Your task to perform on an android device: Go to ESPN.com Image 0: 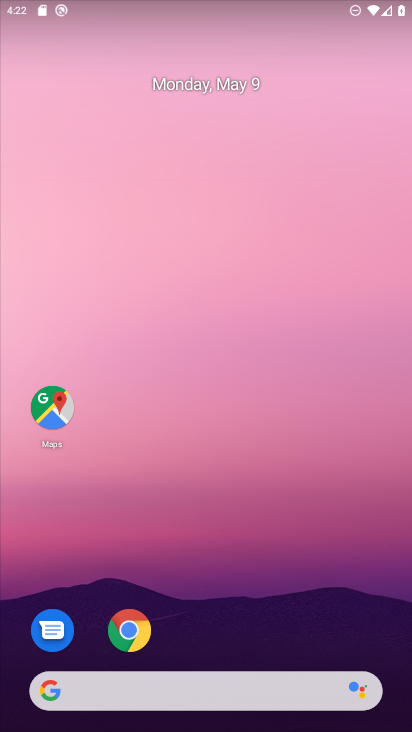
Step 0: drag from (261, 724) to (154, 80)
Your task to perform on an android device: Go to ESPN.com Image 1: 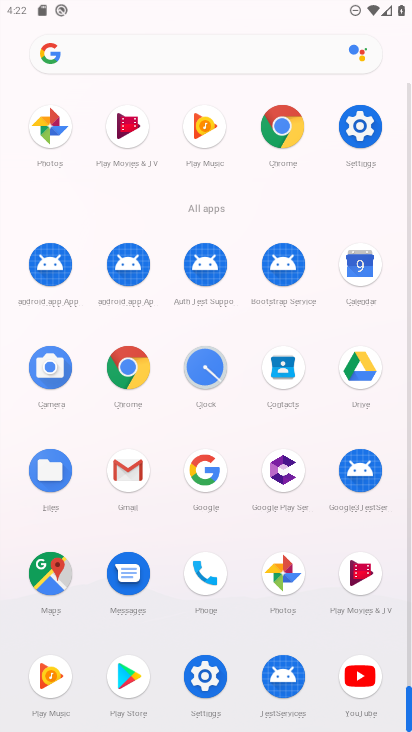
Step 1: click (273, 119)
Your task to perform on an android device: Go to ESPN.com Image 2: 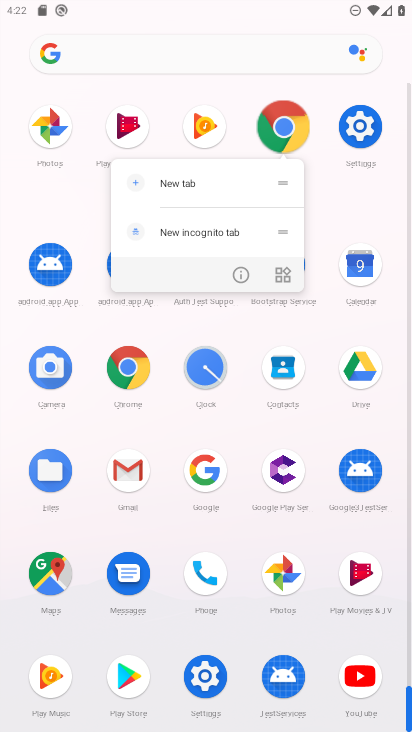
Step 2: click (273, 119)
Your task to perform on an android device: Go to ESPN.com Image 3: 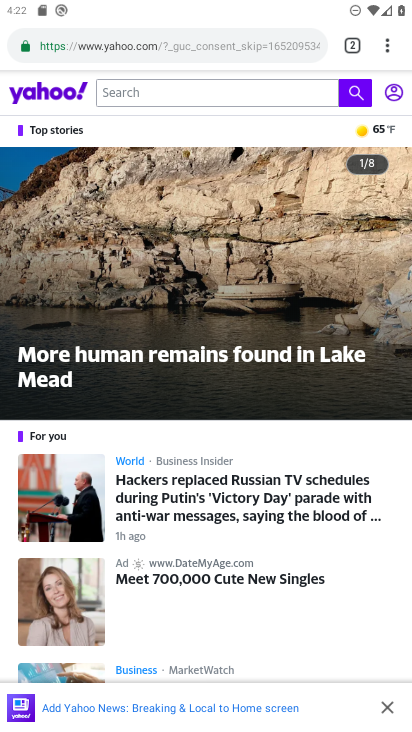
Step 3: drag from (382, 45) to (218, 91)
Your task to perform on an android device: Go to ESPN.com Image 4: 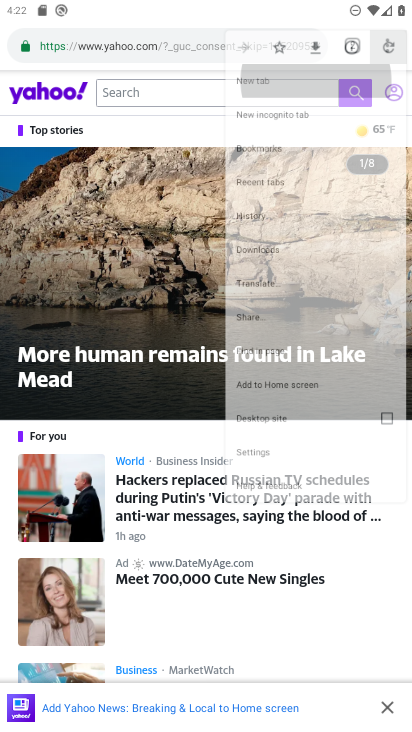
Step 4: click (223, 87)
Your task to perform on an android device: Go to ESPN.com Image 5: 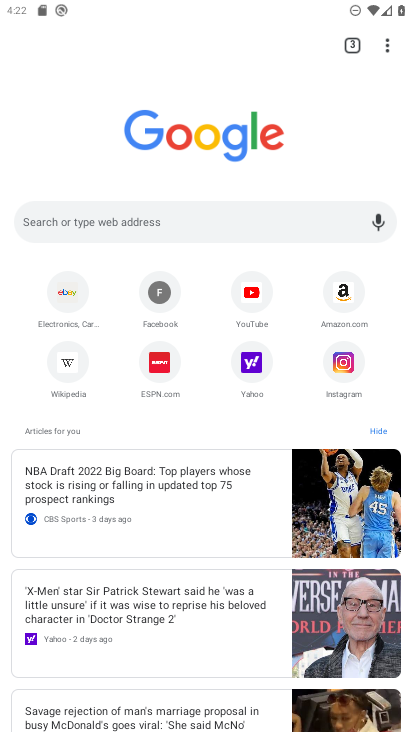
Step 5: click (171, 362)
Your task to perform on an android device: Go to ESPN.com Image 6: 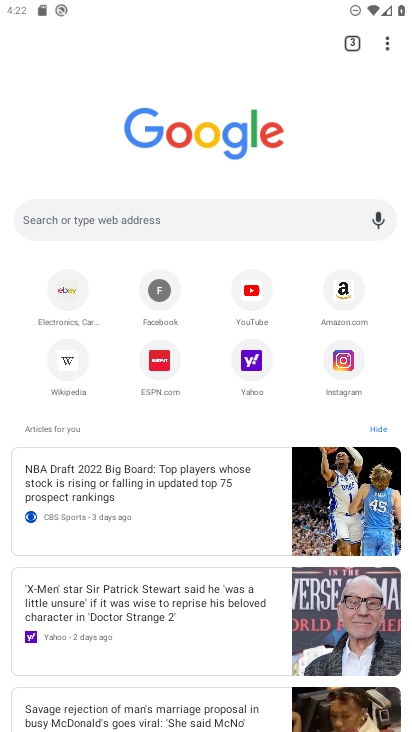
Step 6: click (161, 372)
Your task to perform on an android device: Go to ESPN.com Image 7: 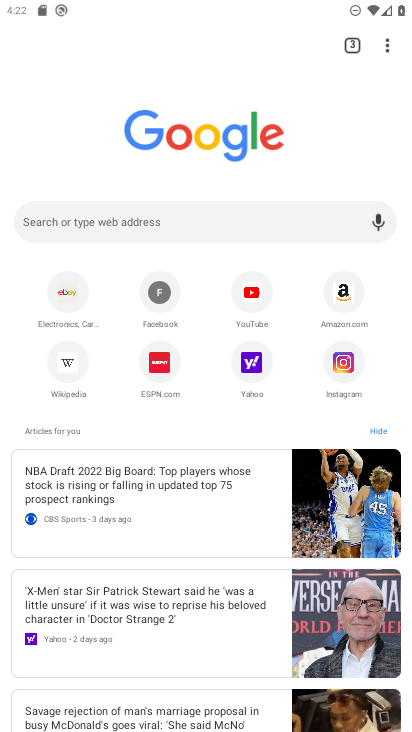
Step 7: click (161, 372)
Your task to perform on an android device: Go to ESPN.com Image 8: 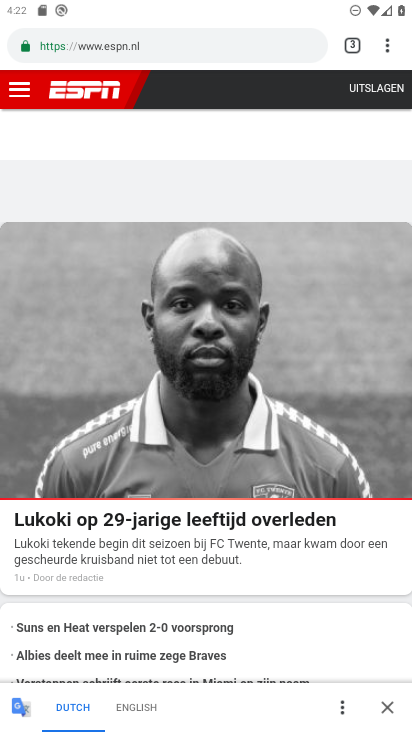
Step 8: task complete